Your task to perform on an android device: all mails in gmail Image 0: 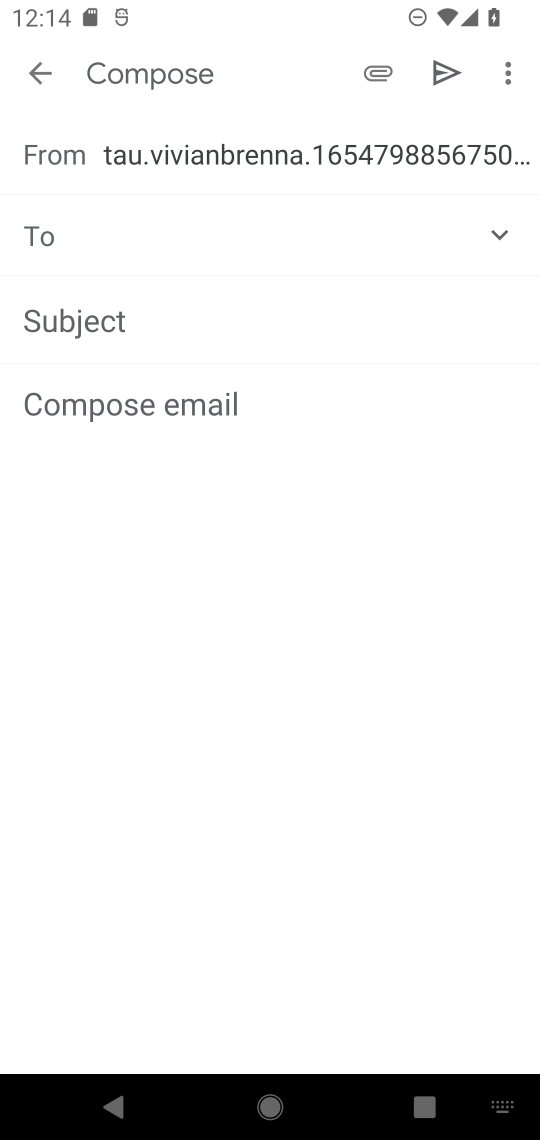
Step 0: press home button
Your task to perform on an android device: all mails in gmail Image 1: 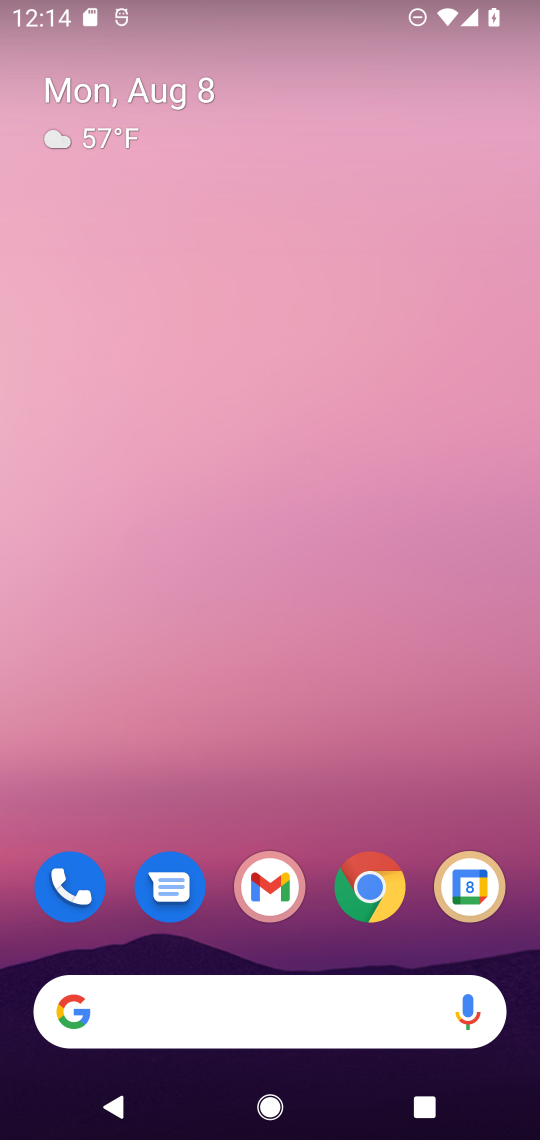
Step 1: click (281, 880)
Your task to perform on an android device: all mails in gmail Image 2: 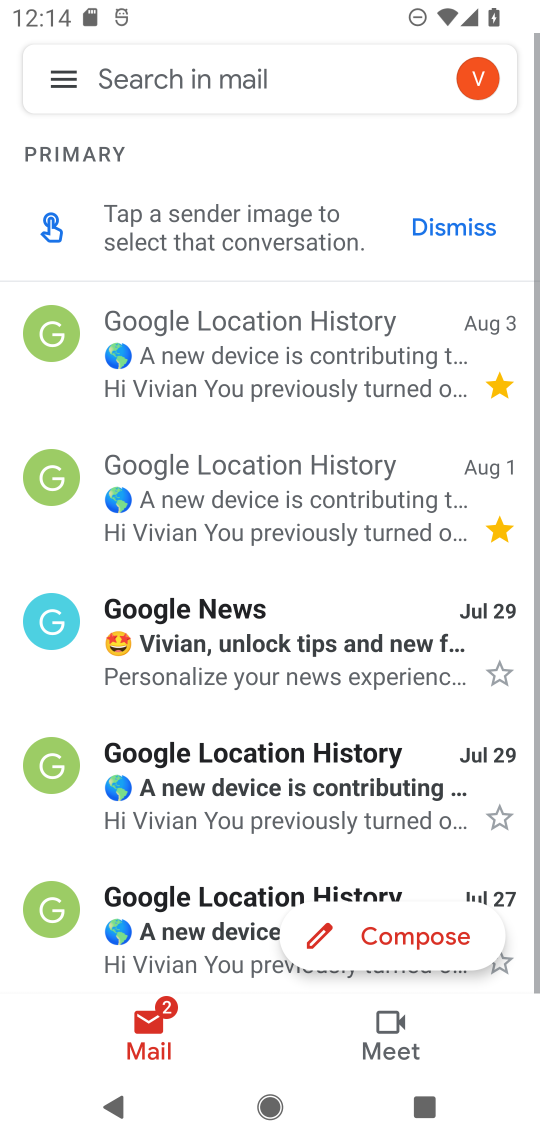
Step 2: click (61, 78)
Your task to perform on an android device: all mails in gmail Image 3: 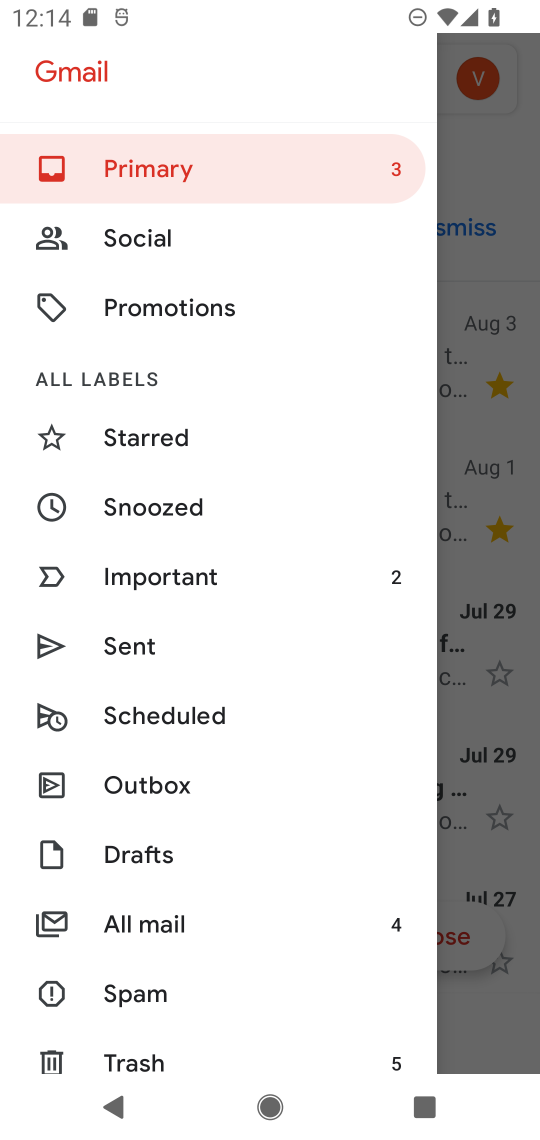
Step 3: click (159, 923)
Your task to perform on an android device: all mails in gmail Image 4: 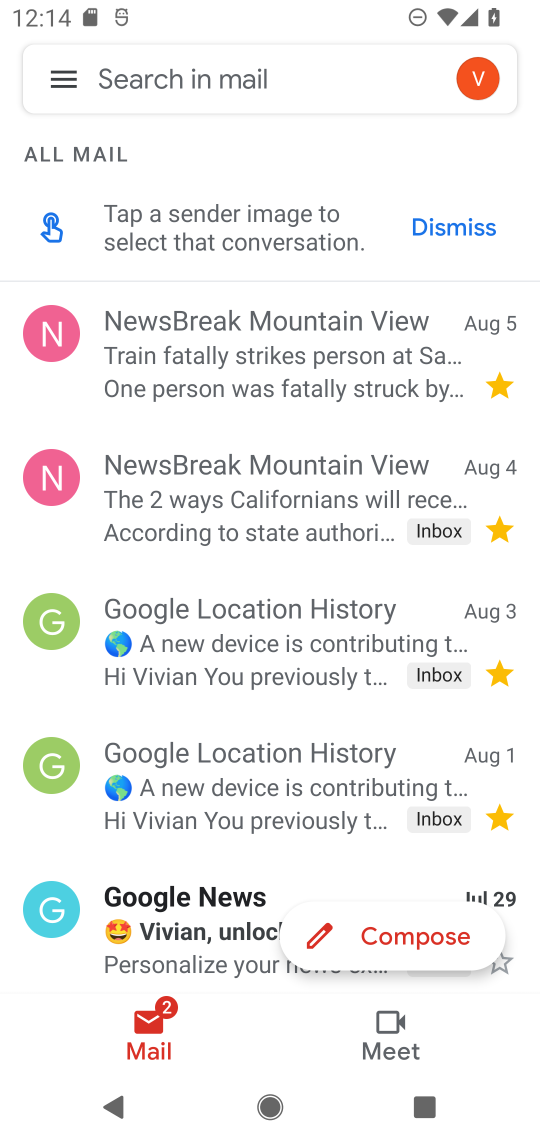
Step 4: task complete